Your task to perform on an android device: turn notification dots off Image 0: 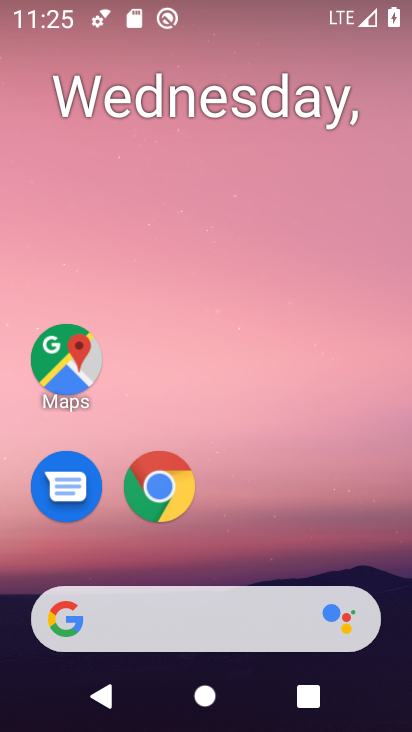
Step 0: drag from (379, 545) to (380, 122)
Your task to perform on an android device: turn notification dots off Image 1: 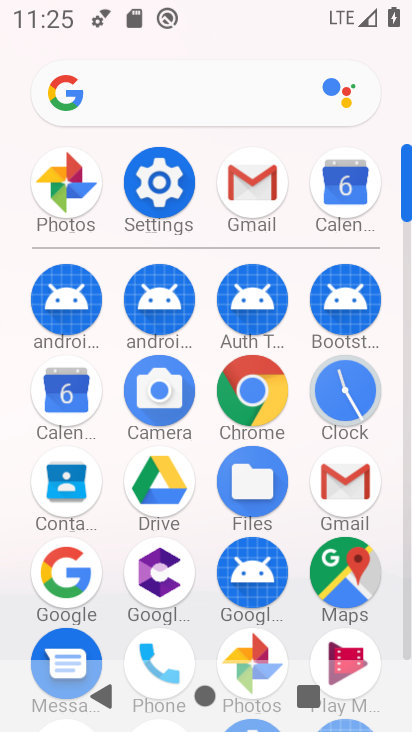
Step 1: click (172, 199)
Your task to perform on an android device: turn notification dots off Image 2: 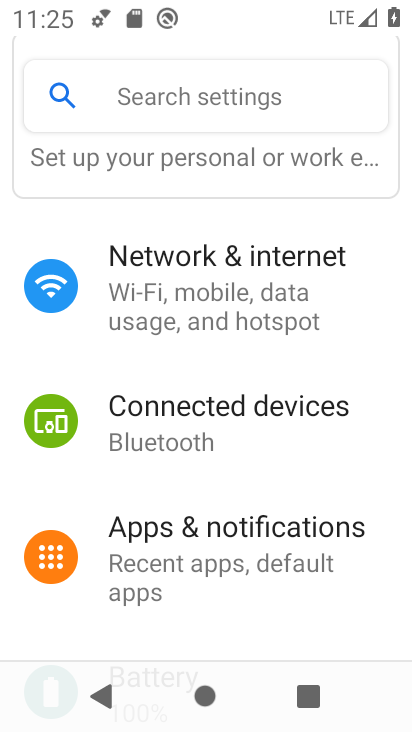
Step 2: drag from (386, 462) to (358, 287)
Your task to perform on an android device: turn notification dots off Image 3: 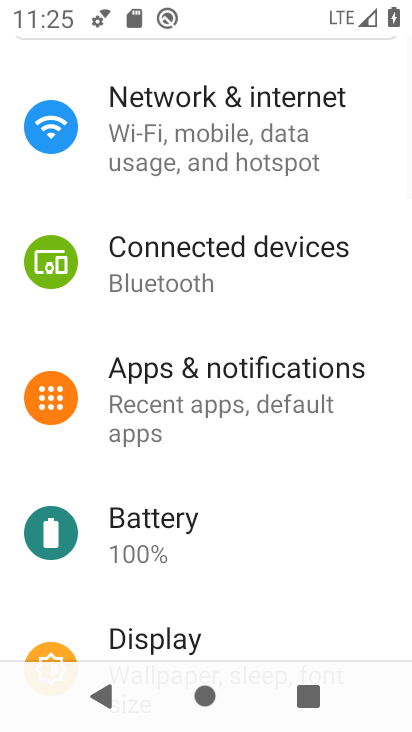
Step 3: drag from (342, 489) to (336, 260)
Your task to perform on an android device: turn notification dots off Image 4: 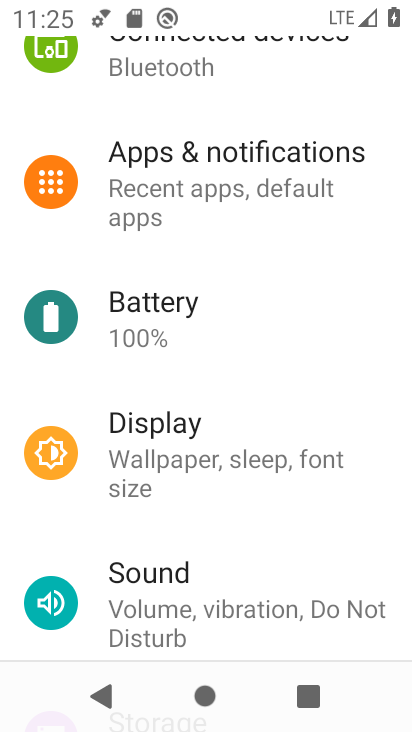
Step 4: click (277, 187)
Your task to perform on an android device: turn notification dots off Image 5: 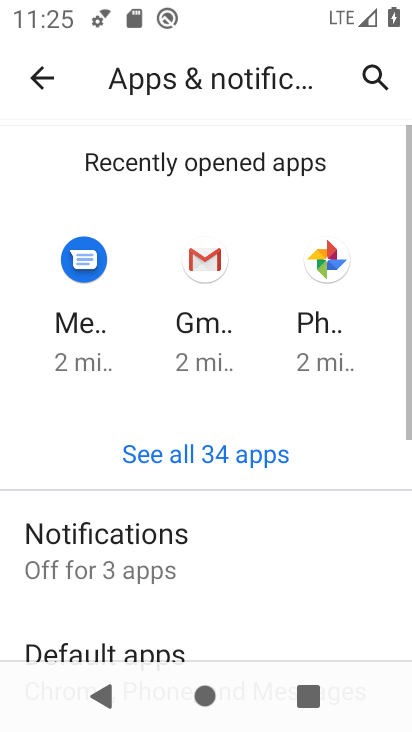
Step 5: drag from (330, 499) to (315, 346)
Your task to perform on an android device: turn notification dots off Image 6: 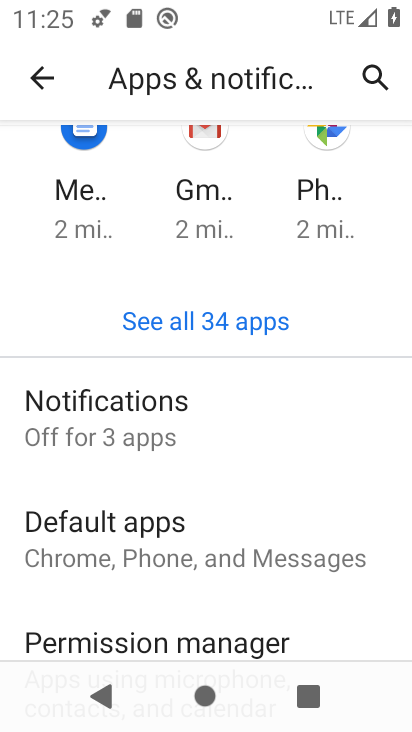
Step 6: drag from (334, 520) to (338, 365)
Your task to perform on an android device: turn notification dots off Image 7: 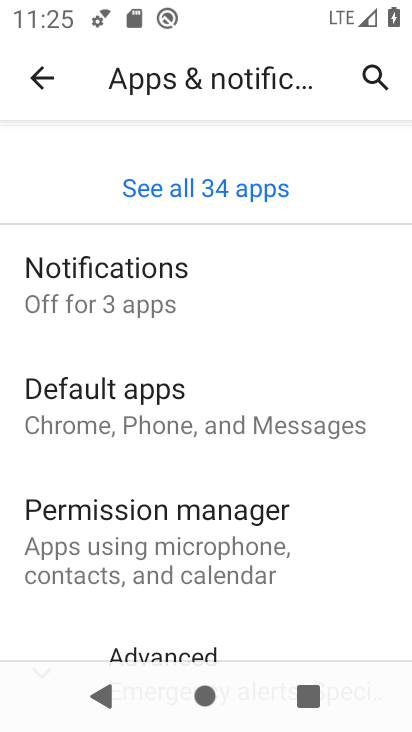
Step 7: click (195, 295)
Your task to perform on an android device: turn notification dots off Image 8: 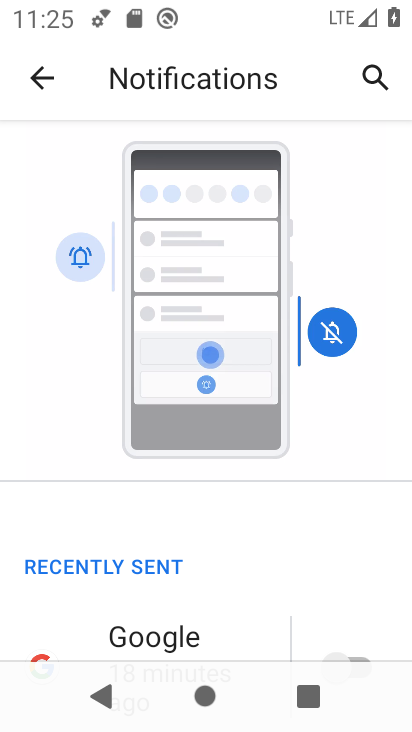
Step 8: drag from (343, 543) to (336, 355)
Your task to perform on an android device: turn notification dots off Image 9: 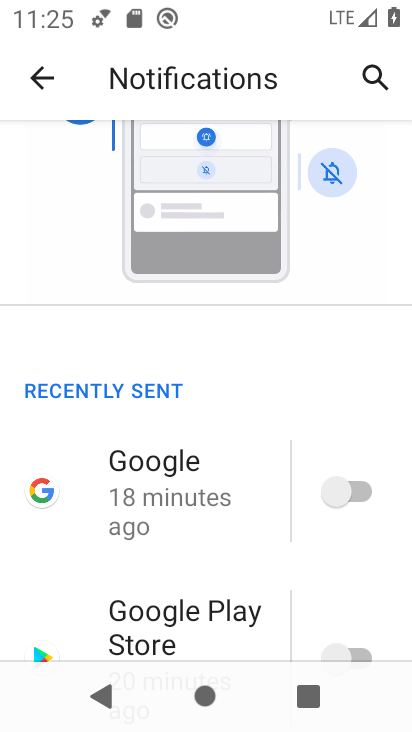
Step 9: drag from (338, 569) to (334, 326)
Your task to perform on an android device: turn notification dots off Image 10: 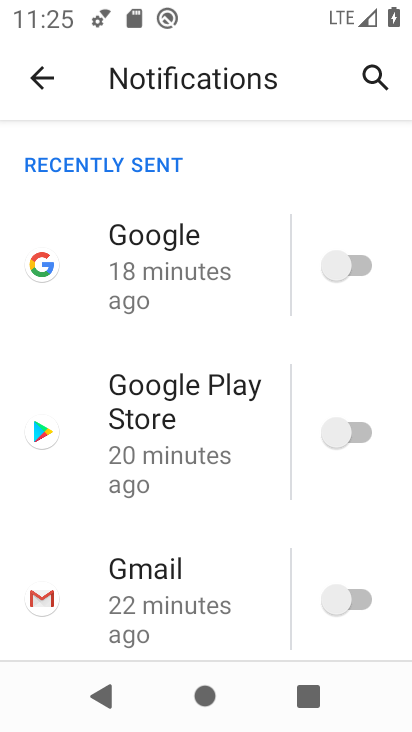
Step 10: drag from (370, 535) to (372, 307)
Your task to perform on an android device: turn notification dots off Image 11: 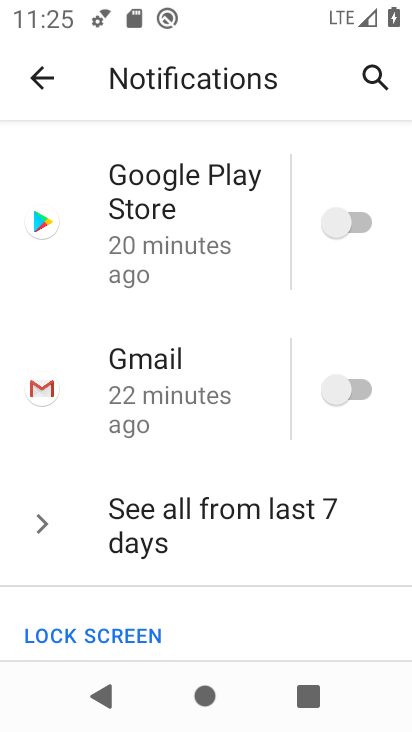
Step 11: drag from (364, 601) to (361, 338)
Your task to perform on an android device: turn notification dots off Image 12: 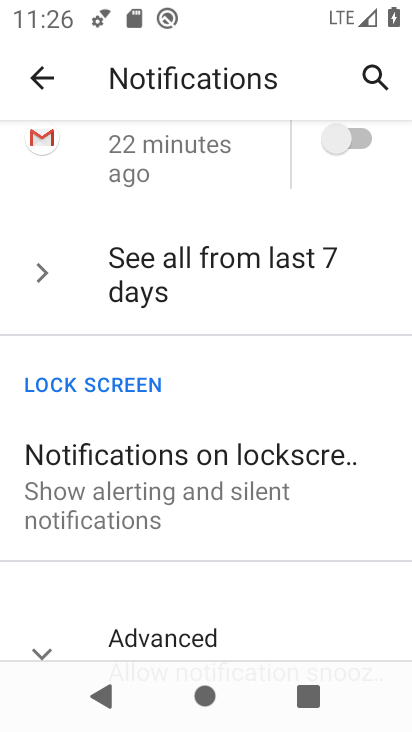
Step 12: drag from (349, 598) to (347, 362)
Your task to perform on an android device: turn notification dots off Image 13: 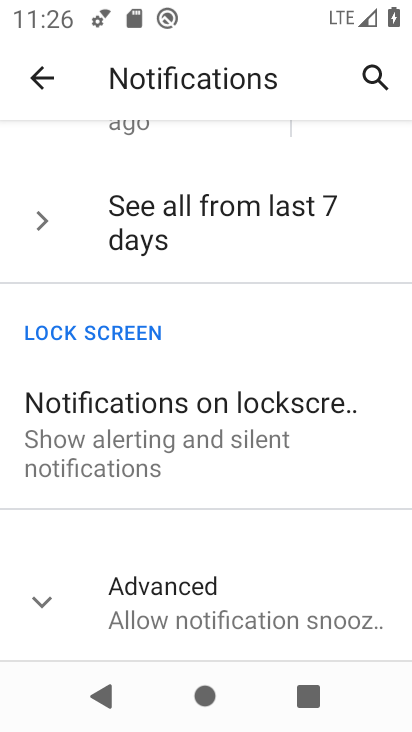
Step 13: click (286, 626)
Your task to perform on an android device: turn notification dots off Image 14: 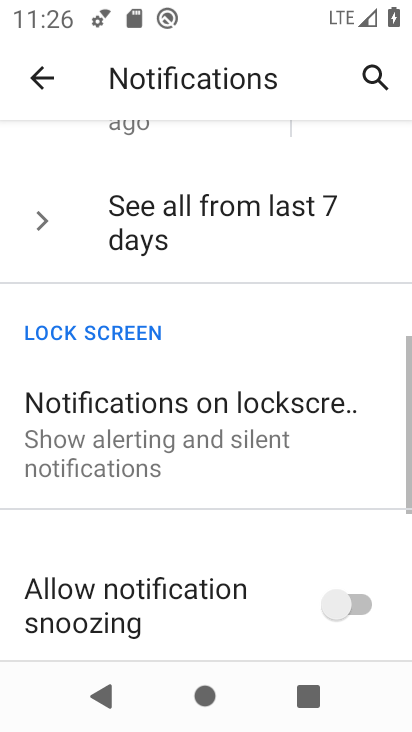
Step 14: task complete